Your task to perform on an android device: toggle show notifications on the lock screen Image 0: 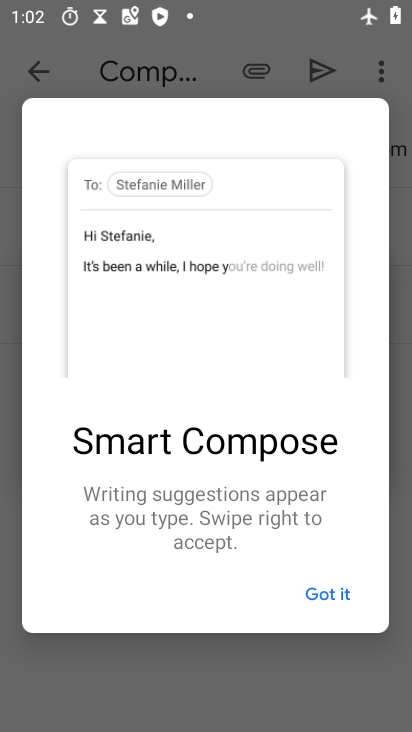
Step 0: press home button
Your task to perform on an android device: toggle show notifications on the lock screen Image 1: 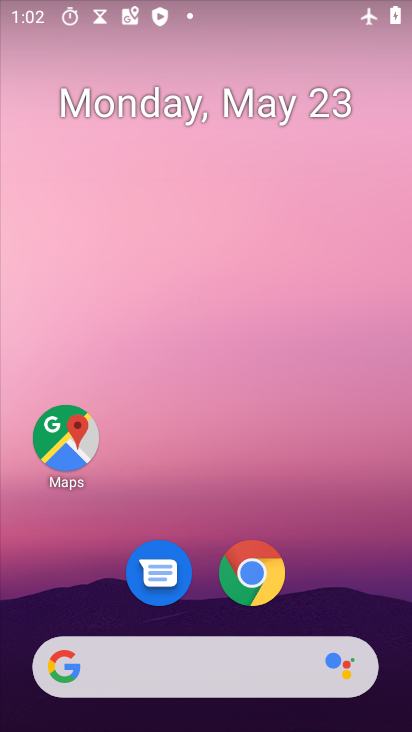
Step 1: drag from (174, 527) to (266, 58)
Your task to perform on an android device: toggle show notifications on the lock screen Image 2: 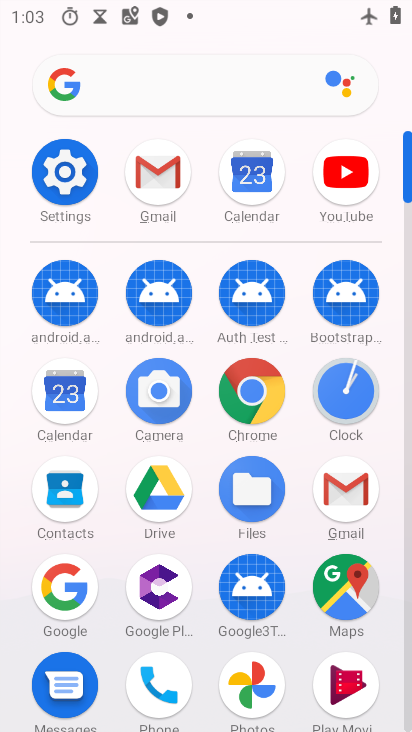
Step 2: click (71, 192)
Your task to perform on an android device: toggle show notifications on the lock screen Image 3: 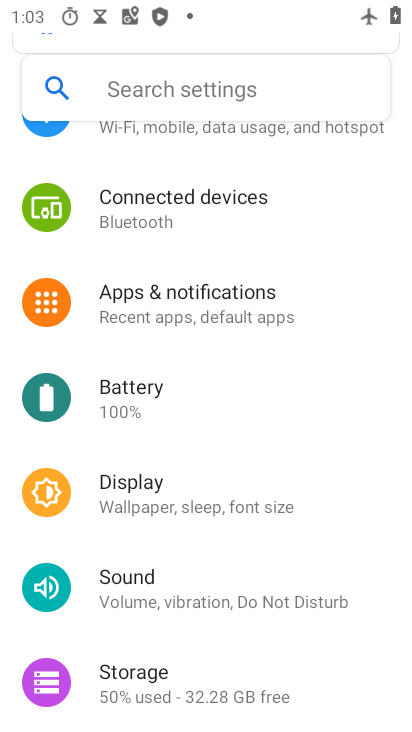
Step 3: click (208, 298)
Your task to perform on an android device: toggle show notifications on the lock screen Image 4: 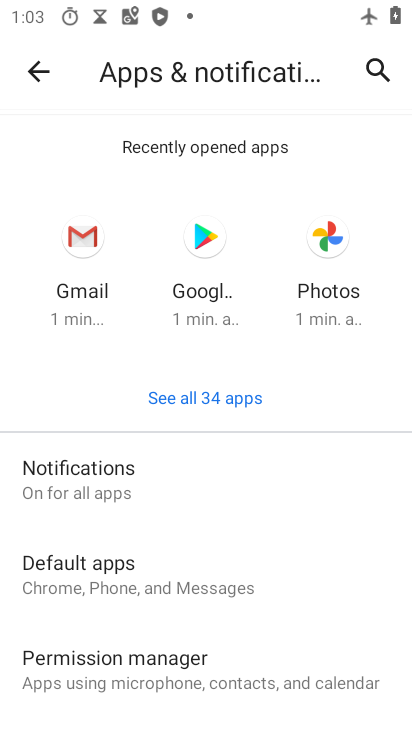
Step 4: click (85, 490)
Your task to perform on an android device: toggle show notifications on the lock screen Image 5: 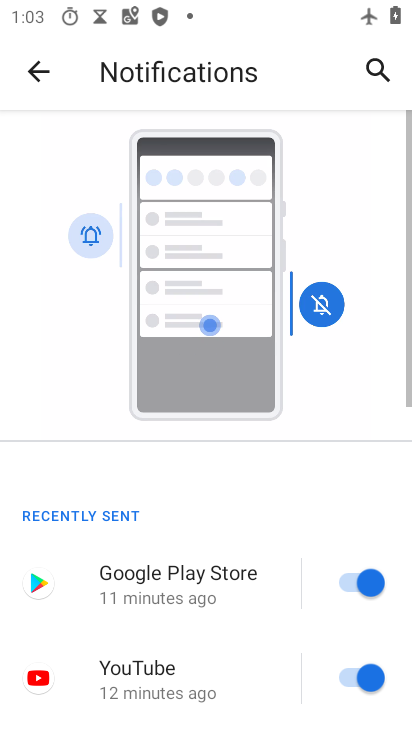
Step 5: drag from (206, 633) to (294, 95)
Your task to perform on an android device: toggle show notifications on the lock screen Image 6: 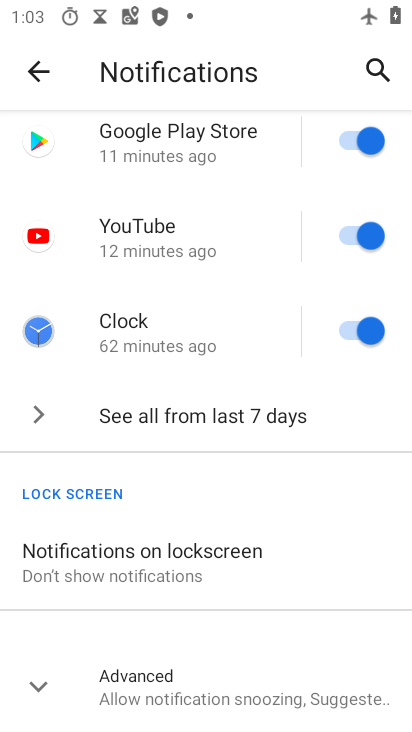
Step 6: click (158, 547)
Your task to perform on an android device: toggle show notifications on the lock screen Image 7: 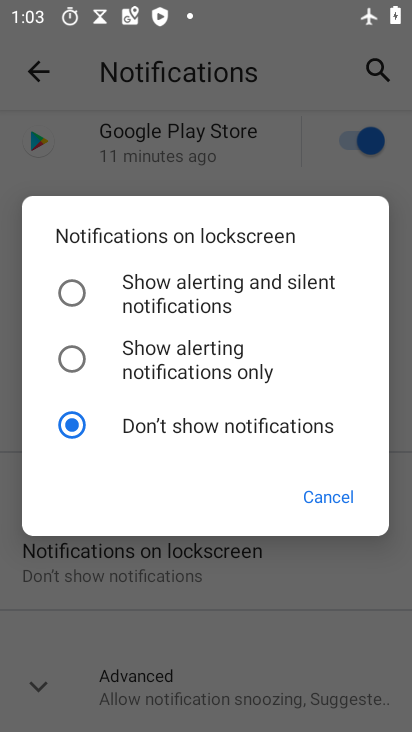
Step 7: click (77, 290)
Your task to perform on an android device: toggle show notifications on the lock screen Image 8: 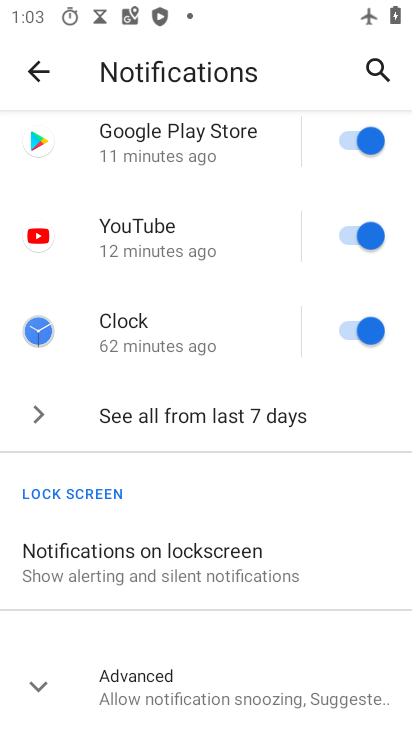
Step 8: task complete